Your task to perform on an android device: check out phone information Image 0: 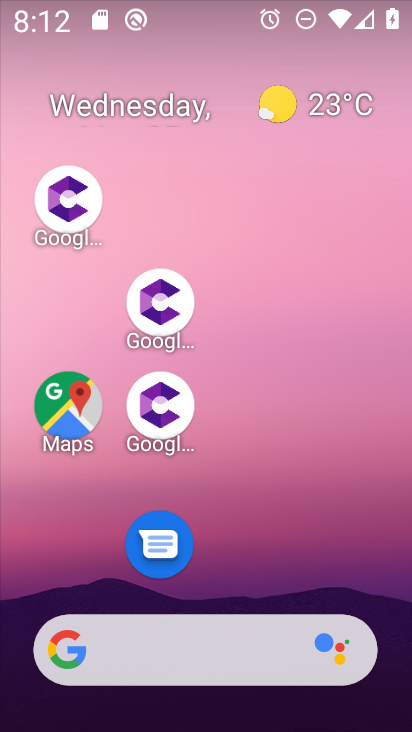
Step 0: drag from (299, 528) to (215, 81)
Your task to perform on an android device: check out phone information Image 1: 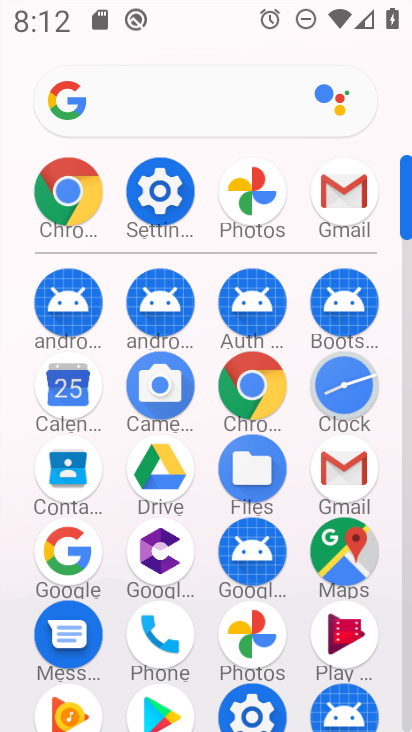
Step 1: click (164, 189)
Your task to perform on an android device: check out phone information Image 2: 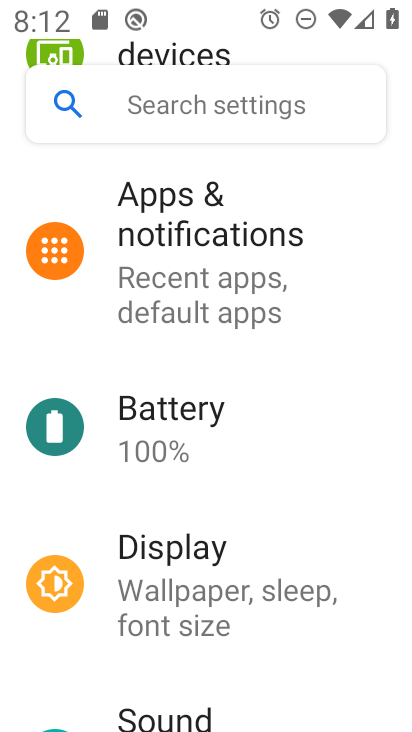
Step 2: drag from (238, 515) to (221, 215)
Your task to perform on an android device: check out phone information Image 3: 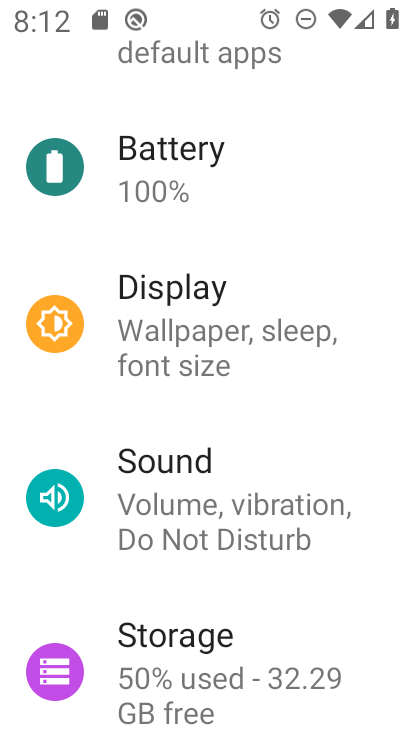
Step 3: drag from (297, 597) to (297, 105)
Your task to perform on an android device: check out phone information Image 4: 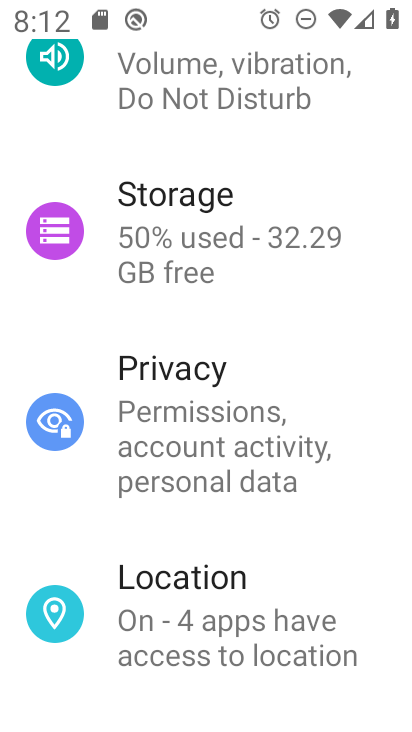
Step 4: drag from (290, 520) to (273, 131)
Your task to perform on an android device: check out phone information Image 5: 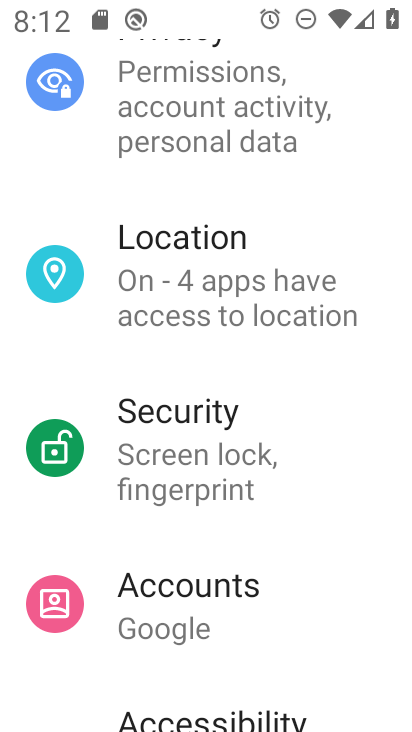
Step 5: drag from (320, 547) to (316, 64)
Your task to perform on an android device: check out phone information Image 6: 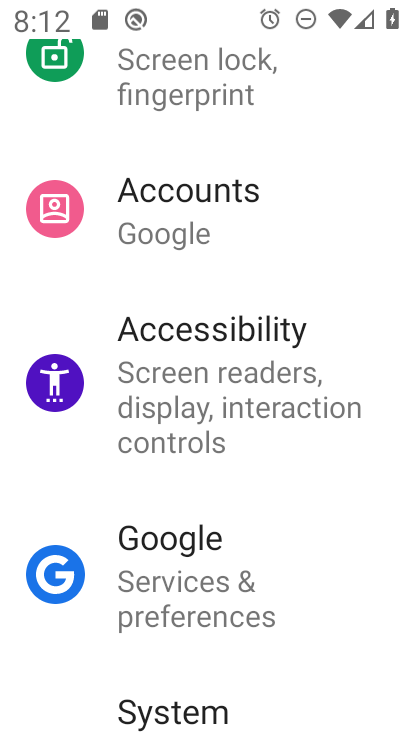
Step 6: drag from (318, 521) to (291, 67)
Your task to perform on an android device: check out phone information Image 7: 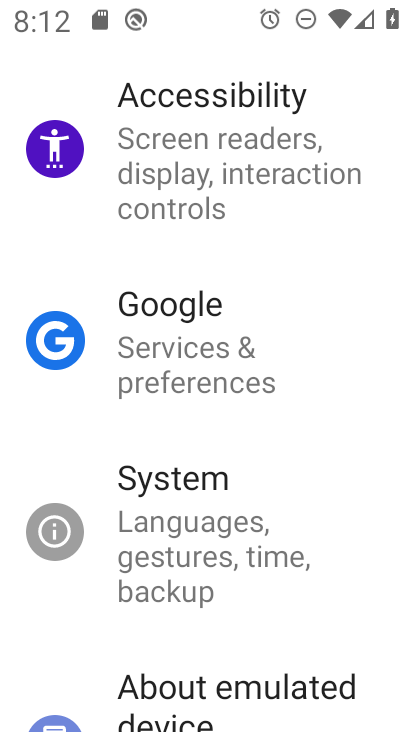
Step 7: drag from (288, 596) to (252, 190)
Your task to perform on an android device: check out phone information Image 8: 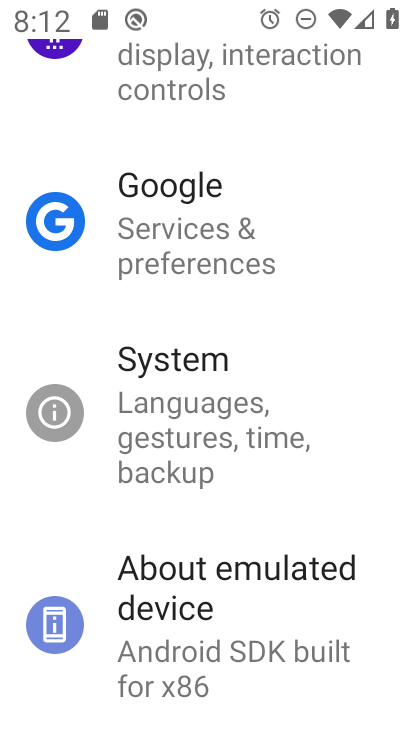
Step 8: click (190, 606)
Your task to perform on an android device: check out phone information Image 9: 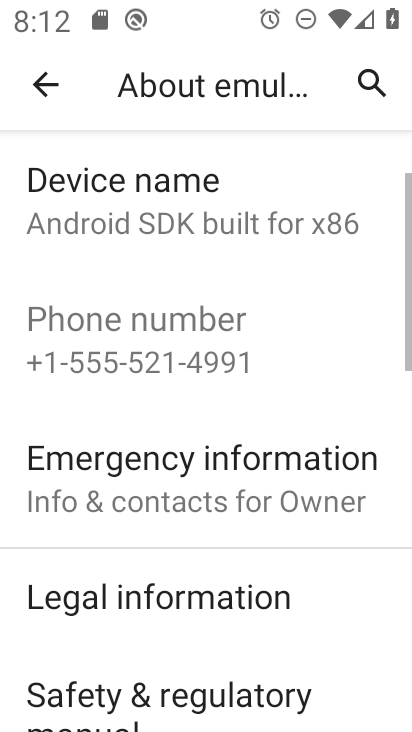
Step 9: task complete